Your task to perform on an android device: turn off notifications settings in the gmail app Image 0: 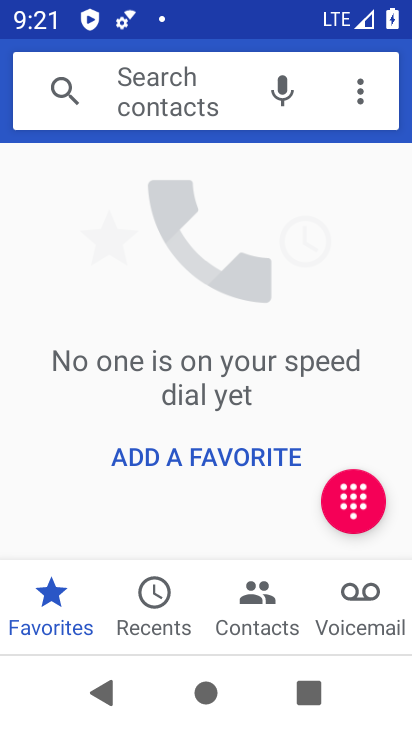
Step 0: press home button
Your task to perform on an android device: turn off notifications settings in the gmail app Image 1: 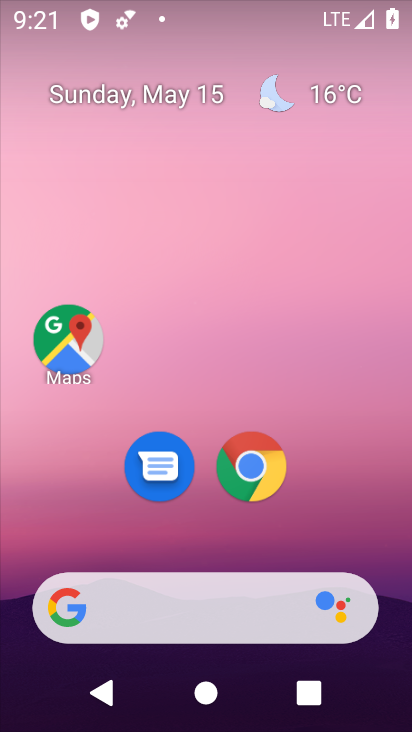
Step 1: drag from (115, 527) to (183, 146)
Your task to perform on an android device: turn off notifications settings in the gmail app Image 2: 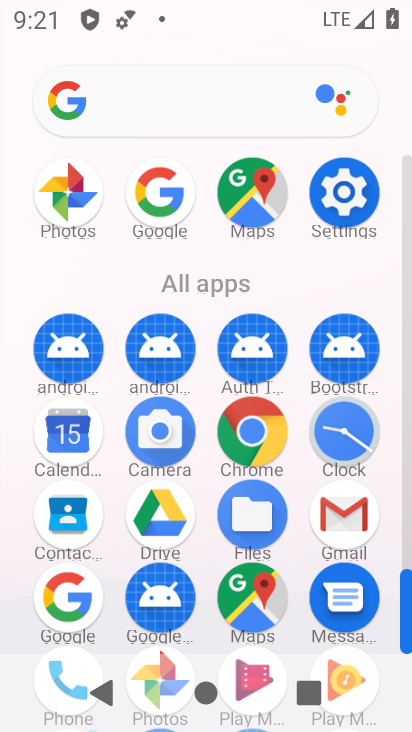
Step 2: click (350, 519)
Your task to perform on an android device: turn off notifications settings in the gmail app Image 3: 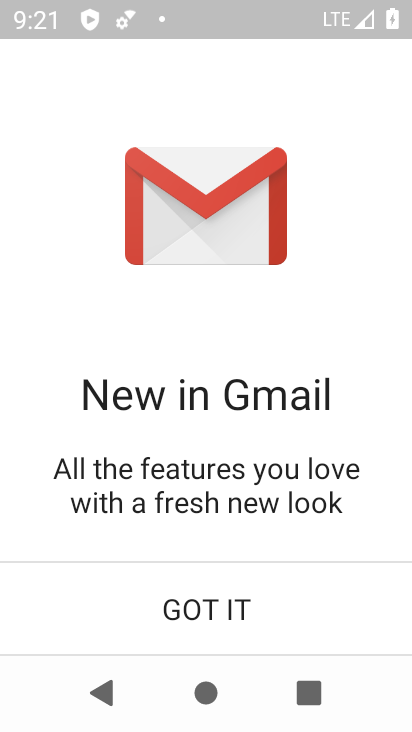
Step 3: click (261, 620)
Your task to perform on an android device: turn off notifications settings in the gmail app Image 4: 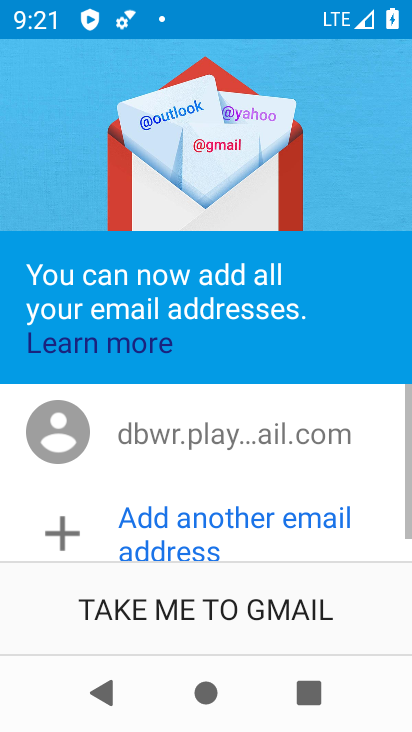
Step 4: click (265, 620)
Your task to perform on an android device: turn off notifications settings in the gmail app Image 5: 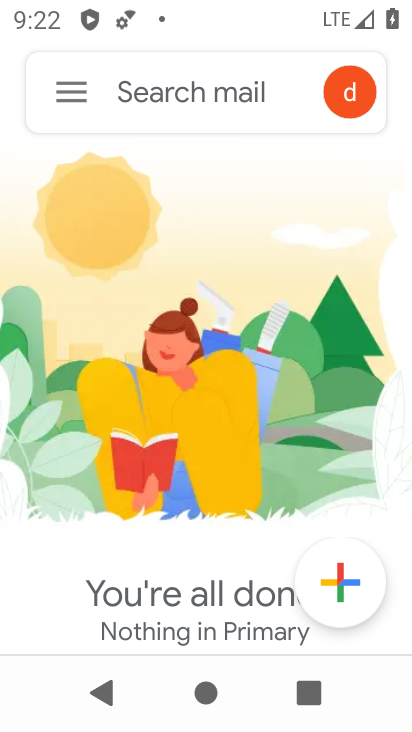
Step 5: click (86, 107)
Your task to perform on an android device: turn off notifications settings in the gmail app Image 6: 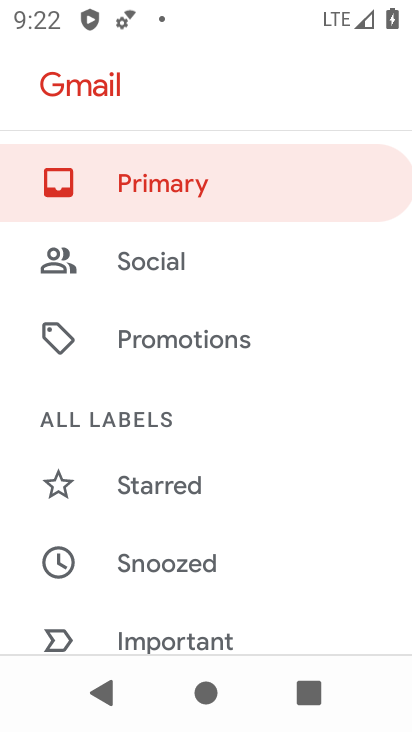
Step 6: drag from (130, 573) to (287, 179)
Your task to perform on an android device: turn off notifications settings in the gmail app Image 7: 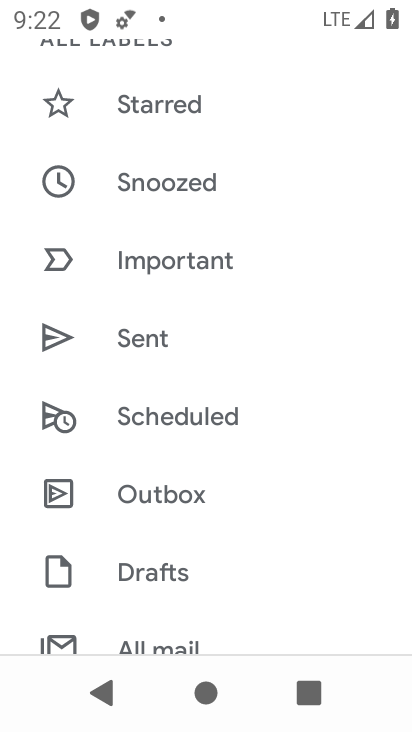
Step 7: drag from (236, 619) to (380, 305)
Your task to perform on an android device: turn off notifications settings in the gmail app Image 8: 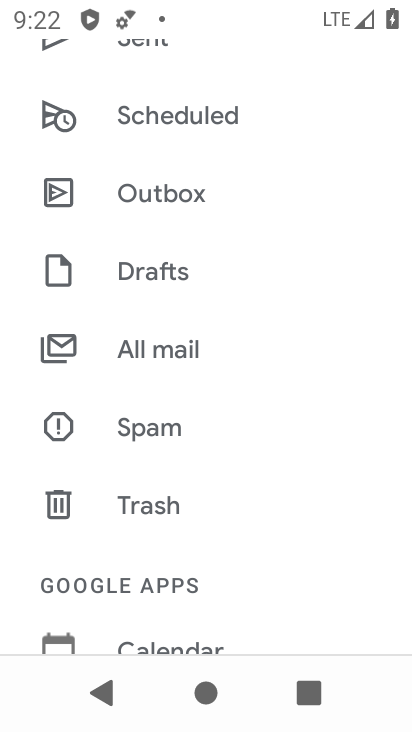
Step 8: drag from (211, 566) to (285, 189)
Your task to perform on an android device: turn off notifications settings in the gmail app Image 9: 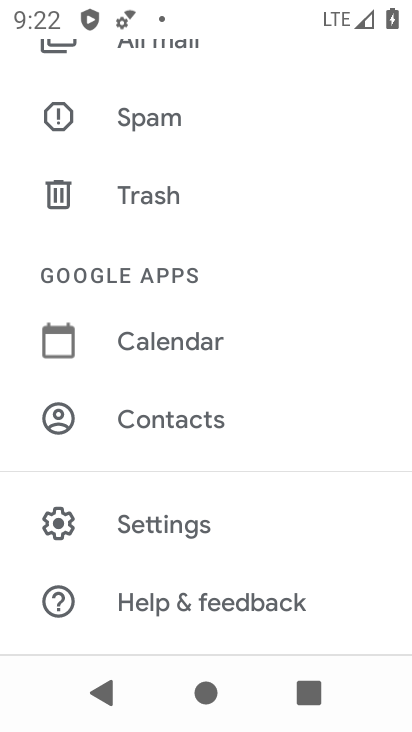
Step 9: click (218, 529)
Your task to perform on an android device: turn off notifications settings in the gmail app Image 10: 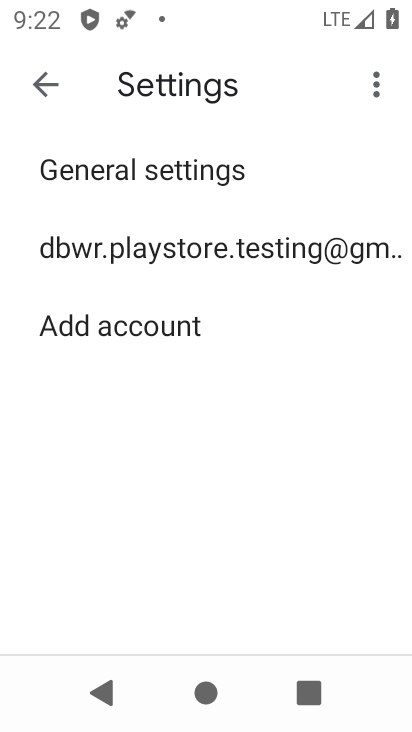
Step 10: click (265, 236)
Your task to perform on an android device: turn off notifications settings in the gmail app Image 11: 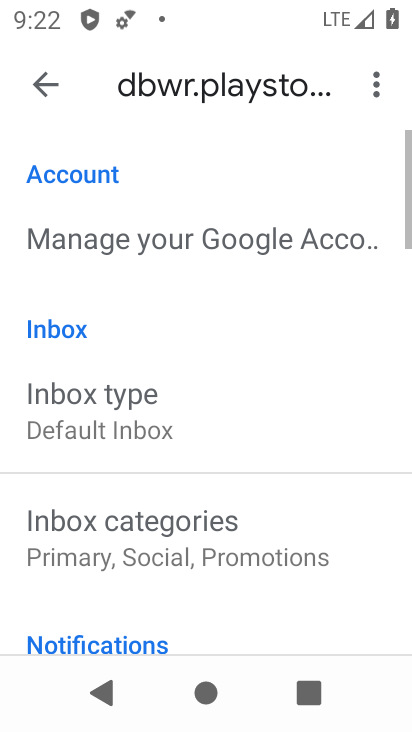
Step 11: drag from (205, 598) to (333, 248)
Your task to perform on an android device: turn off notifications settings in the gmail app Image 12: 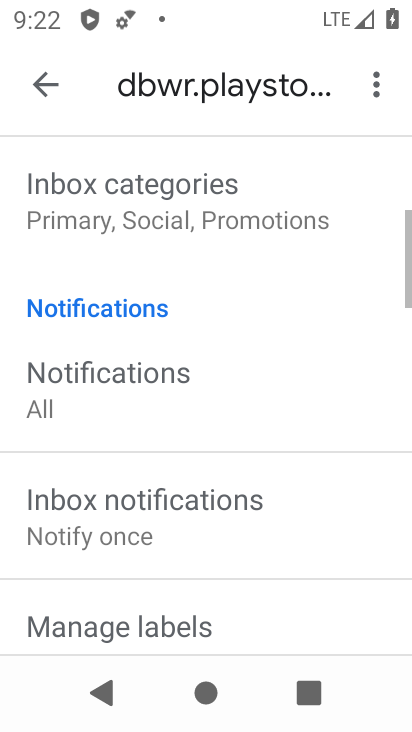
Step 12: drag from (212, 570) to (294, 280)
Your task to perform on an android device: turn off notifications settings in the gmail app Image 13: 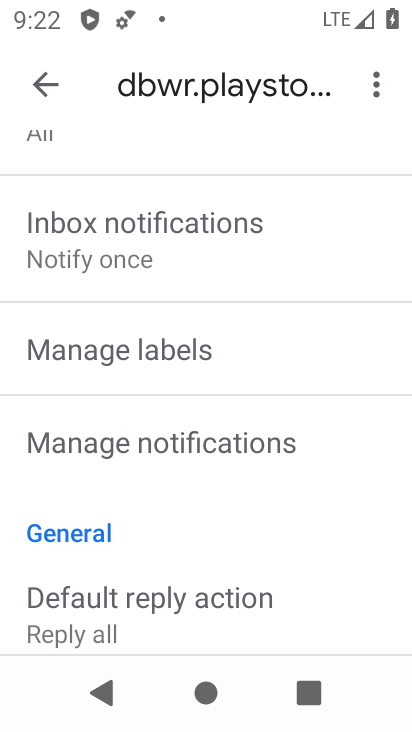
Step 13: click (213, 450)
Your task to perform on an android device: turn off notifications settings in the gmail app Image 14: 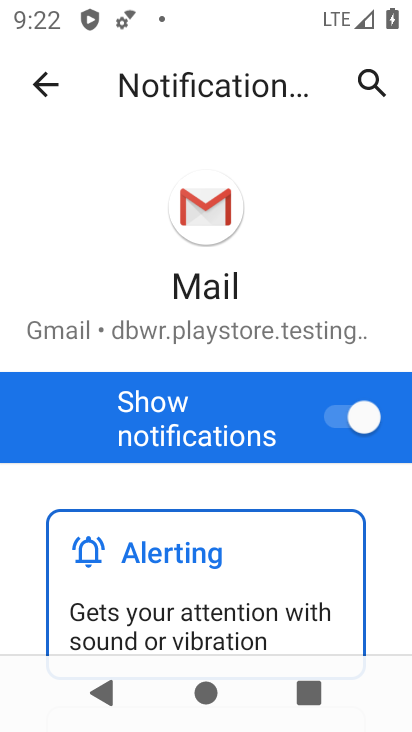
Step 14: click (341, 414)
Your task to perform on an android device: turn off notifications settings in the gmail app Image 15: 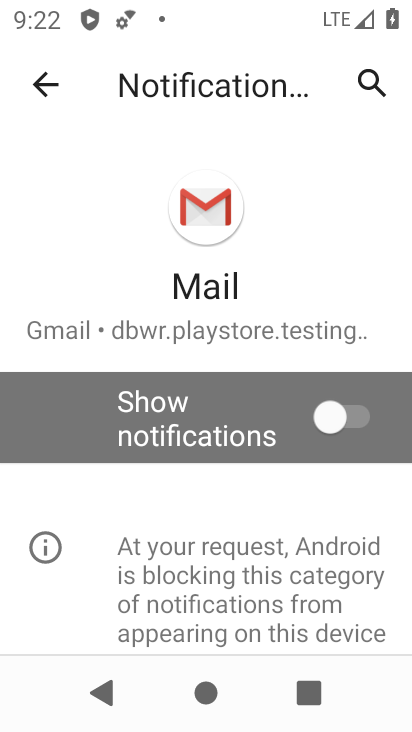
Step 15: task complete